Your task to perform on an android device: set the stopwatch Image 0: 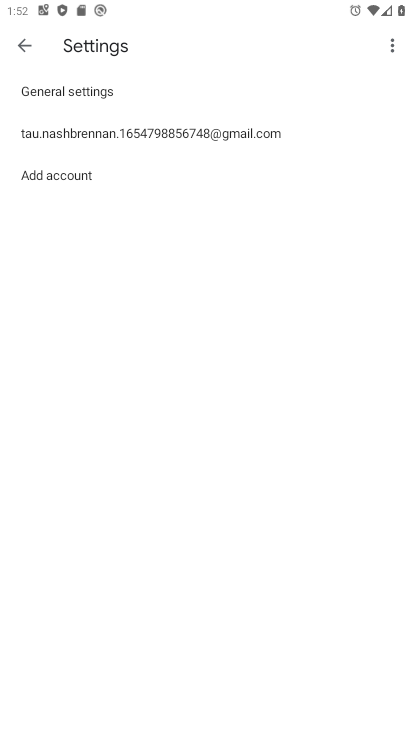
Step 0: press home button
Your task to perform on an android device: set the stopwatch Image 1: 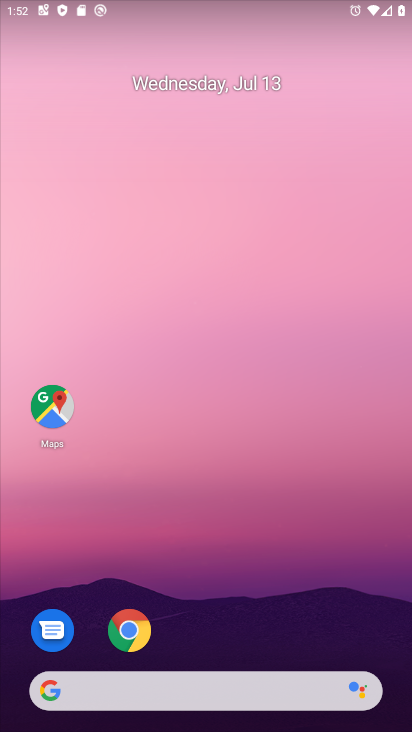
Step 1: drag from (326, 613) to (323, 172)
Your task to perform on an android device: set the stopwatch Image 2: 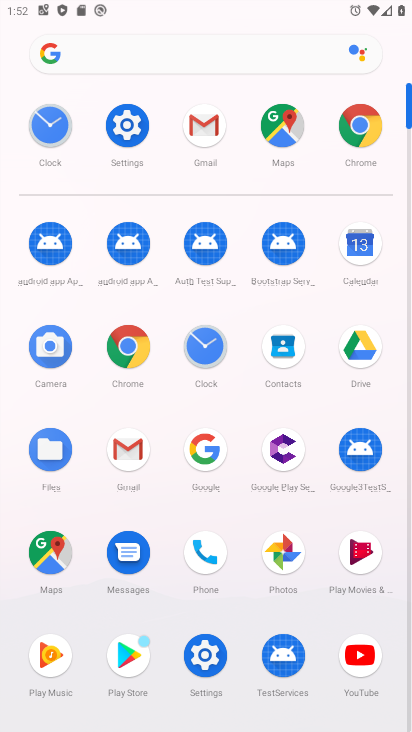
Step 2: click (207, 348)
Your task to perform on an android device: set the stopwatch Image 3: 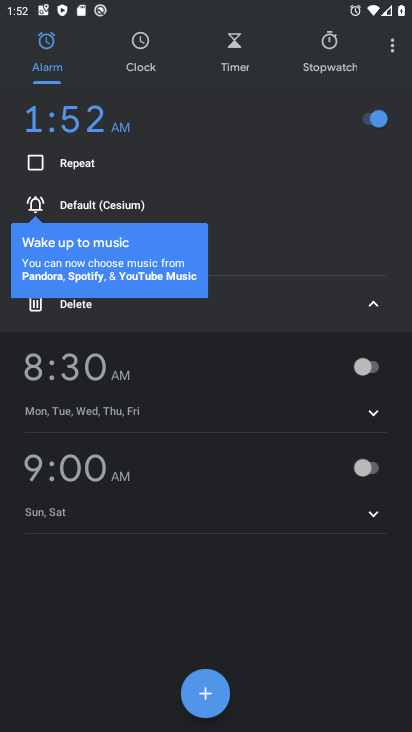
Step 3: click (337, 56)
Your task to perform on an android device: set the stopwatch Image 4: 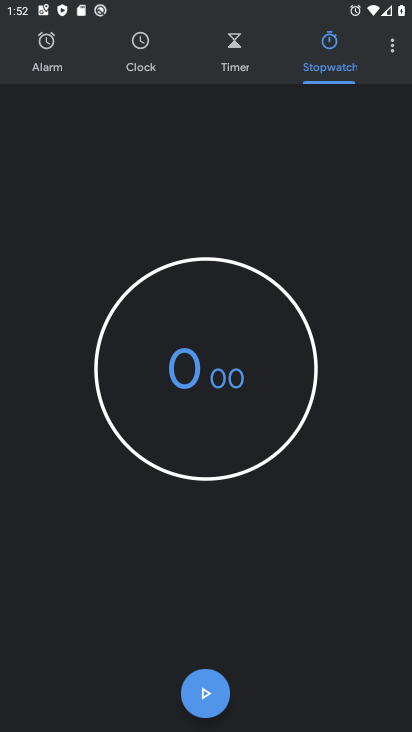
Step 4: click (214, 691)
Your task to perform on an android device: set the stopwatch Image 5: 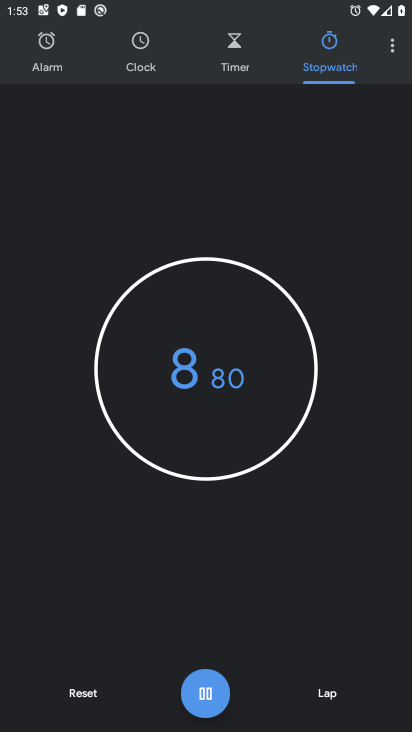
Step 5: task complete